Your task to perform on an android device: Open the calendar app, open the side menu, and click the "Day" option Image 0: 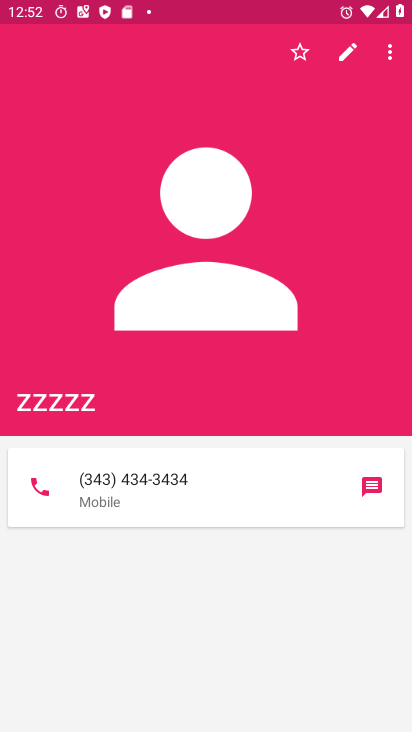
Step 0: press home button
Your task to perform on an android device: Open the calendar app, open the side menu, and click the "Day" option Image 1: 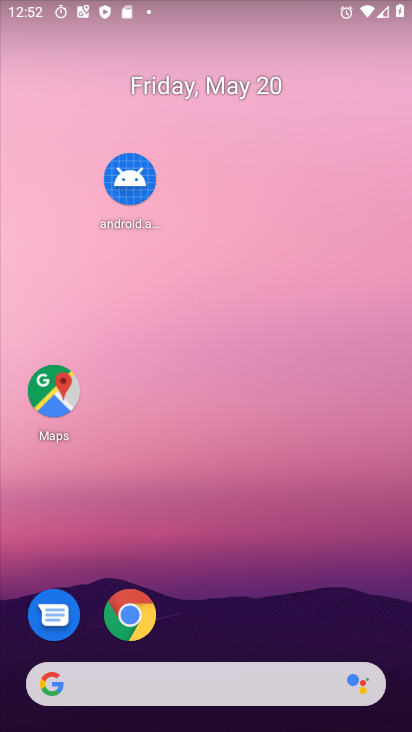
Step 1: drag from (240, 558) to (212, 30)
Your task to perform on an android device: Open the calendar app, open the side menu, and click the "Day" option Image 2: 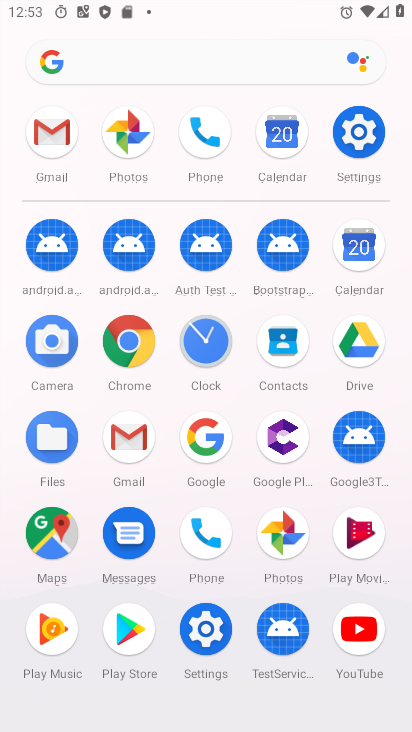
Step 2: click (357, 248)
Your task to perform on an android device: Open the calendar app, open the side menu, and click the "Day" option Image 3: 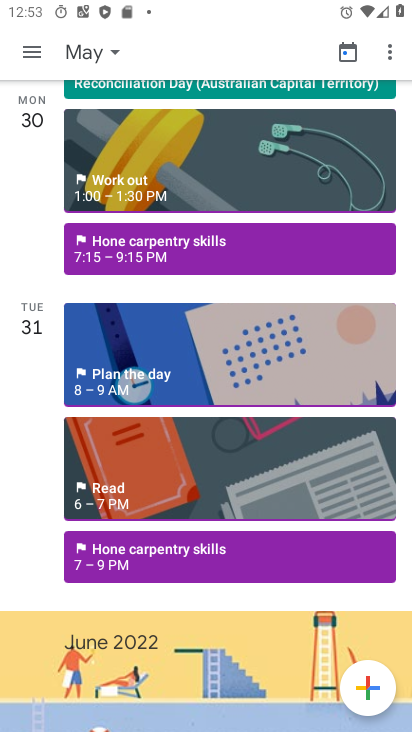
Step 3: click (23, 50)
Your task to perform on an android device: Open the calendar app, open the side menu, and click the "Day" option Image 4: 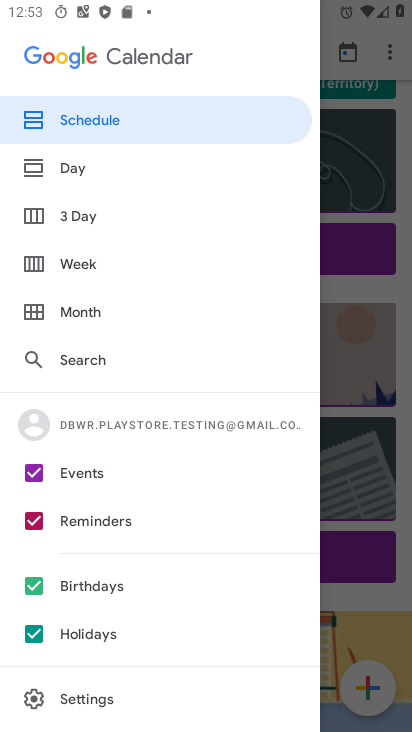
Step 4: click (83, 170)
Your task to perform on an android device: Open the calendar app, open the side menu, and click the "Day" option Image 5: 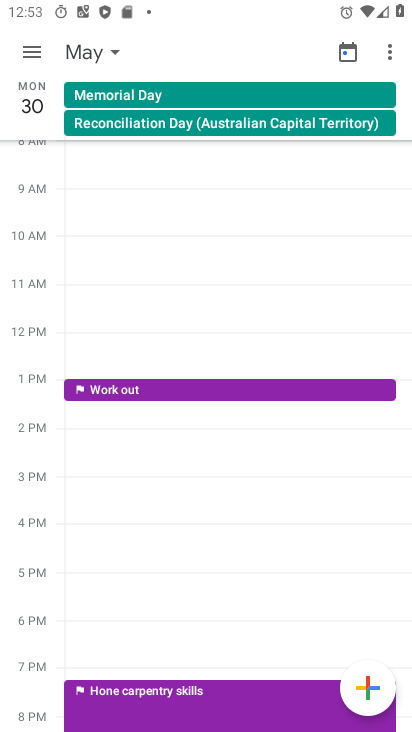
Step 5: task complete